Your task to perform on an android device: turn on improve location accuracy Image 0: 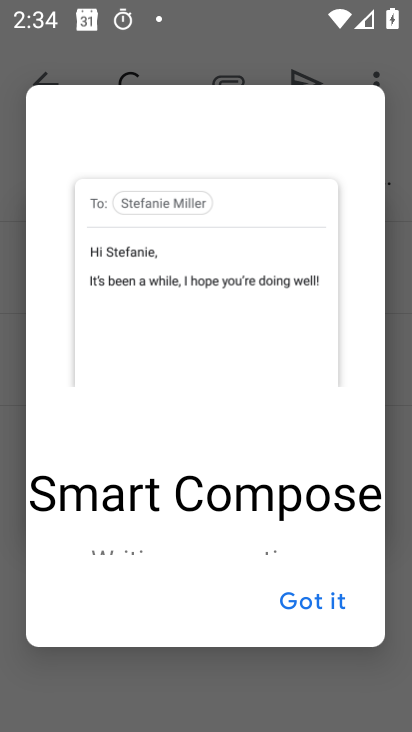
Step 0: press home button
Your task to perform on an android device: turn on improve location accuracy Image 1: 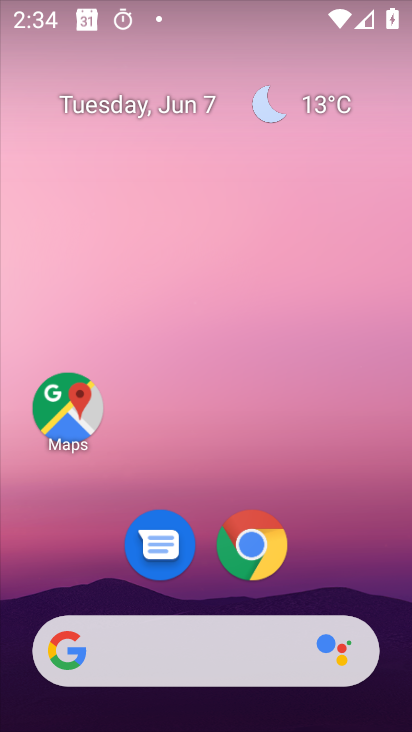
Step 1: drag from (350, 484) to (299, 10)
Your task to perform on an android device: turn on improve location accuracy Image 2: 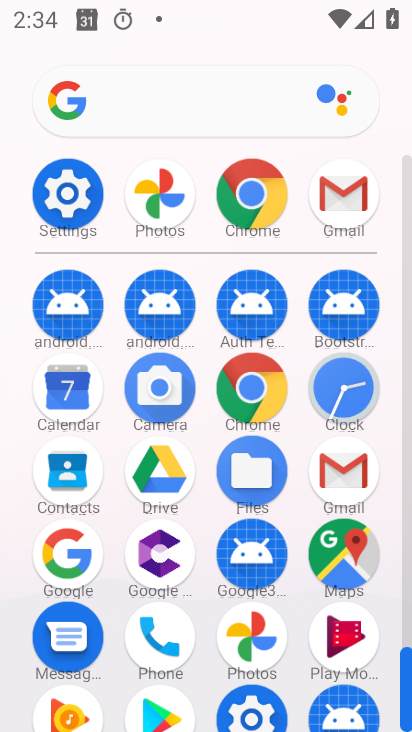
Step 2: click (62, 199)
Your task to perform on an android device: turn on improve location accuracy Image 3: 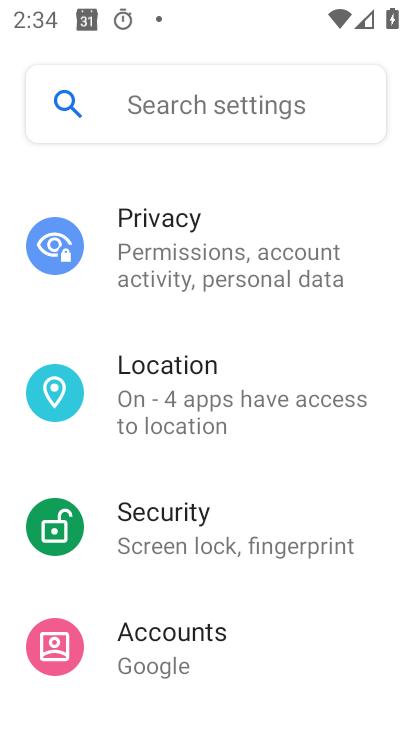
Step 3: click (196, 416)
Your task to perform on an android device: turn on improve location accuracy Image 4: 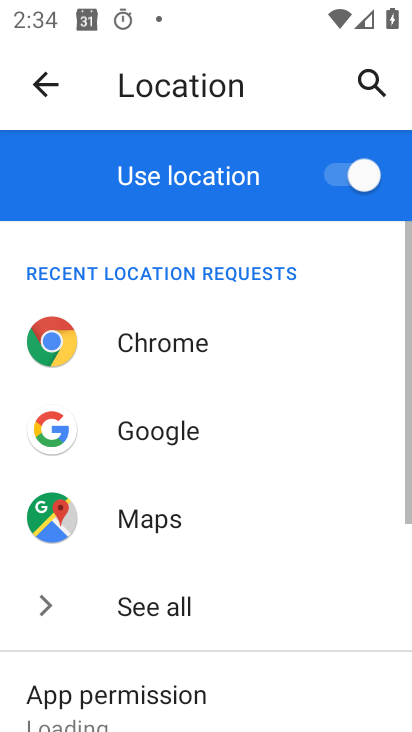
Step 4: drag from (236, 647) to (323, 91)
Your task to perform on an android device: turn on improve location accuracy Image 5: 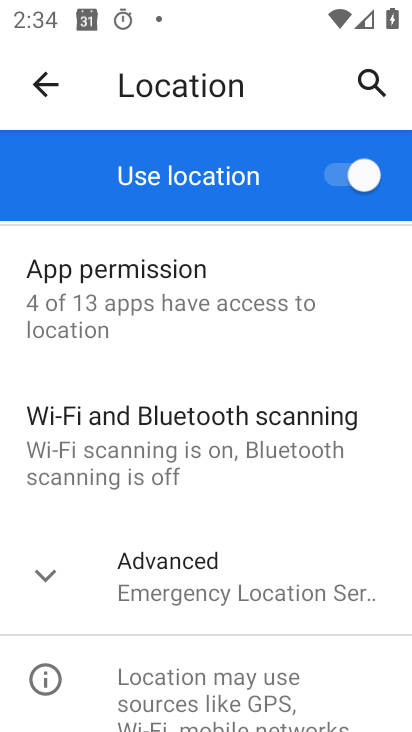
Step 5: drag from (212, 566) to (243, 308)
Your task to perform on an android device: turn on improve location accuracy Image 6: 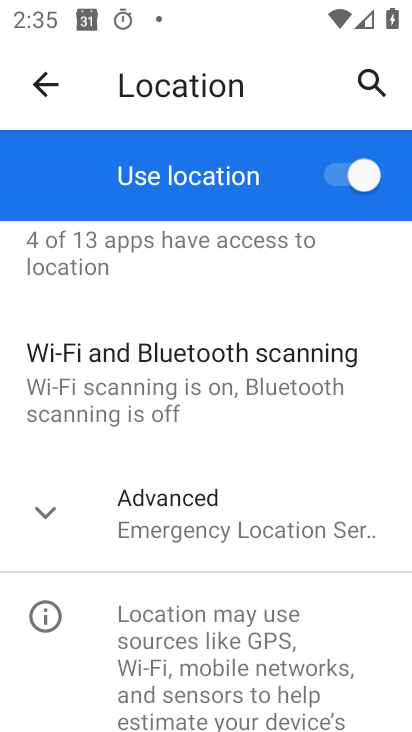
Step 6: click (188, 503)
Your task to perform on an android device: turn on improve location accuracy Image 7: 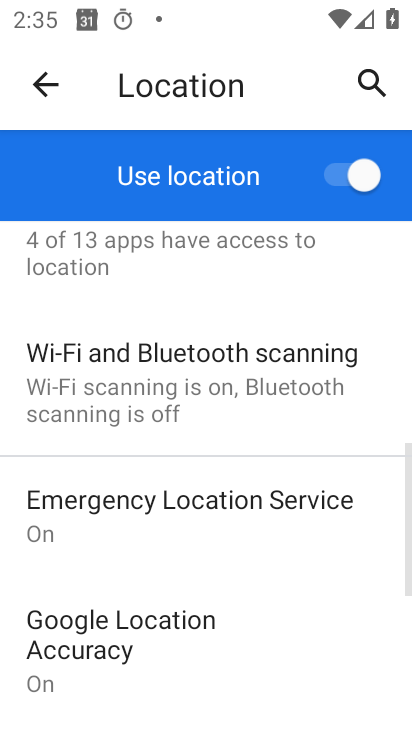
Step 7: click (203, 651)
Your task to perform on an android device: turn on improve location accuracy Image 8: 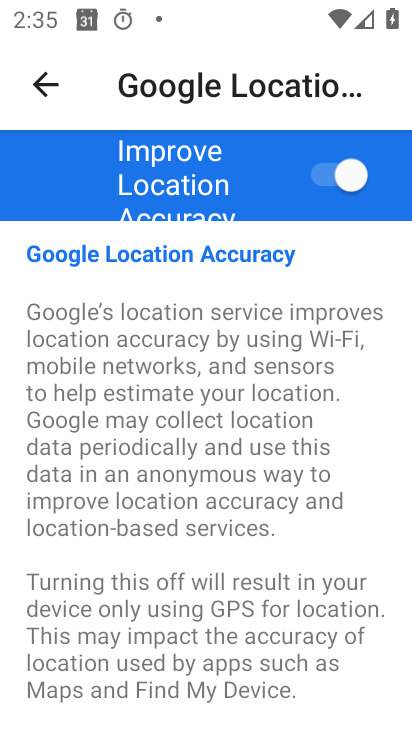
Step 8: task complete